Your task to perform on an android device: toggle improve location accuracy Image 0: 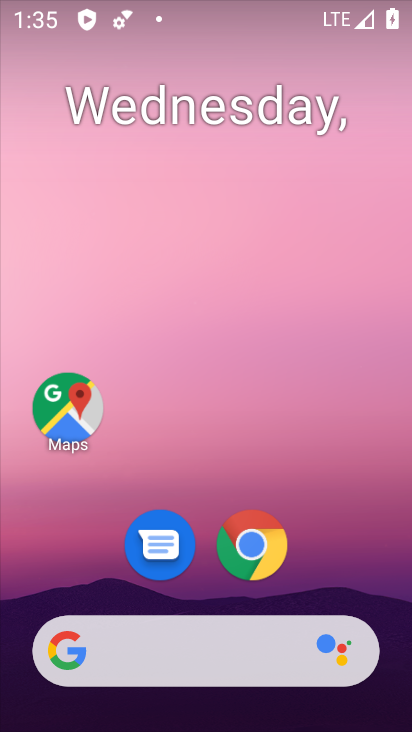
Step 0: drag from (338, 492) to (309, 55)
Your task to perform on an android device: toggle improve location accuracy Image 1: 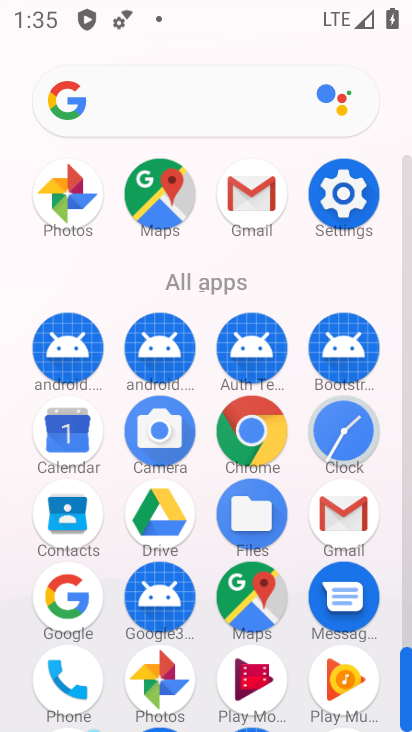
Step 1: click (325, 195)
Your task to perform on an android device: toggle improve location accuracy Image 2: 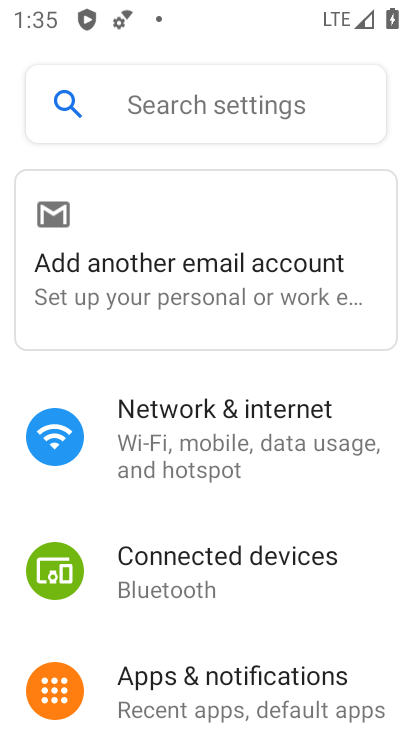
Step 2: drag from (197, 572) to (229, 206)
Your task to perform on an android device: toggle improve location accuracy Image 3: 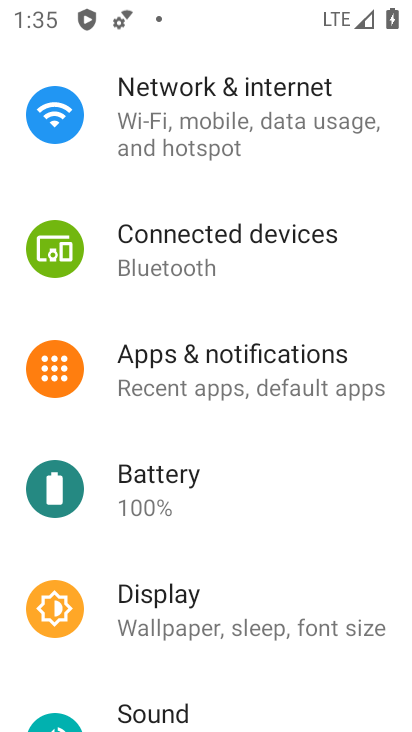
Step 3: drag from (216, 528) to (248, 187)
Your task to perform on an android device: toggle improve location accuracy Image 4: 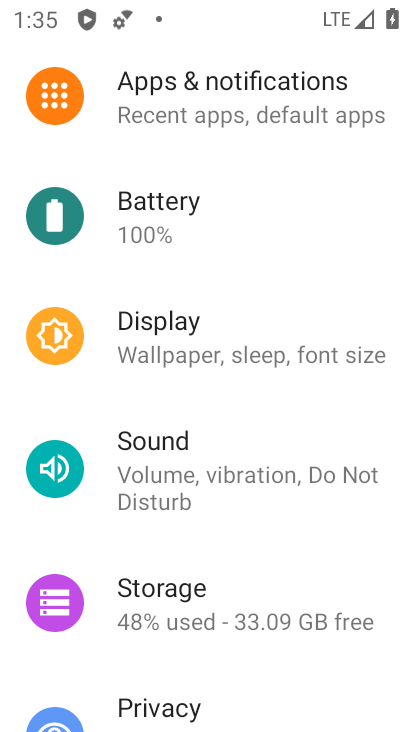
Step 4: drag from (227, 597) to (228, 197)
Your task to perform on an android device: toggle improve location accuracy Image 5: 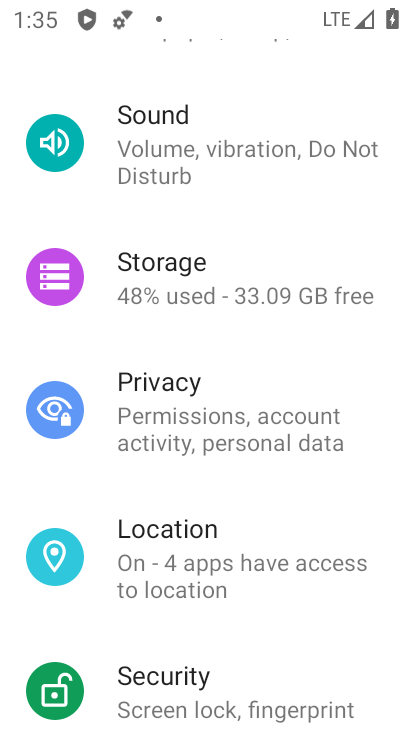
Step 5: click (164, 555)
Your task to perform on an android device: toggle improve location accuracy Image 6: 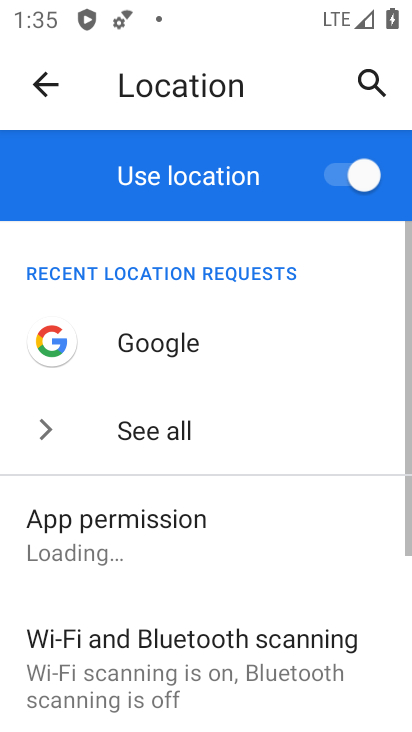
Step 6: drag from (255, 616) to (283, 161)
Your task to perform on an android device: toggle improve location accuracy Image 7: 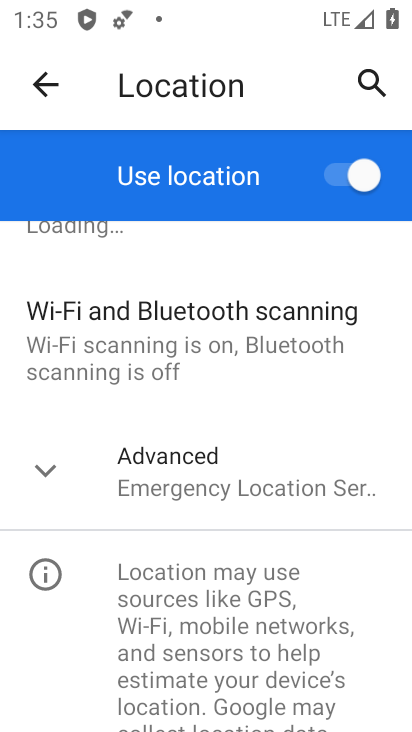
Step 7: click (176, 476)
Your task to perform on an android device: toggle improve location accuracy Image 8: 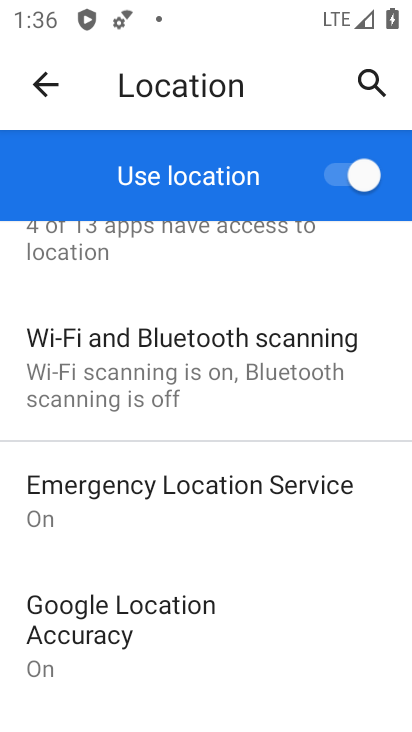
Step 8: drag from (283, 587) to (289, 243)
Your task to perform on an android device: toggle improve location accuracy Image 9: 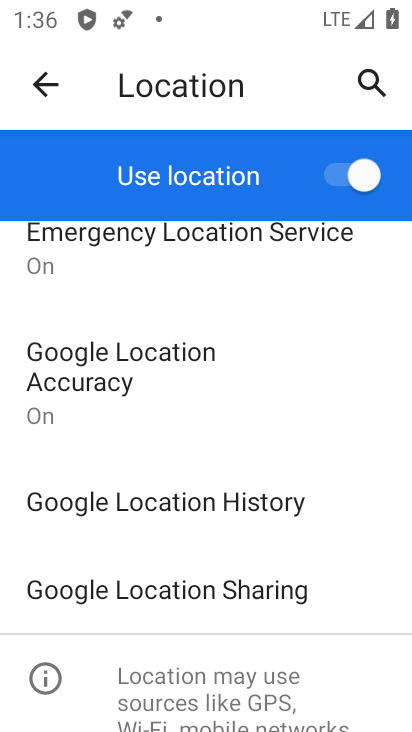
Step 9: click (138, 369)
Your task to perform on an android device: toggle improve location accuracy Image 10: 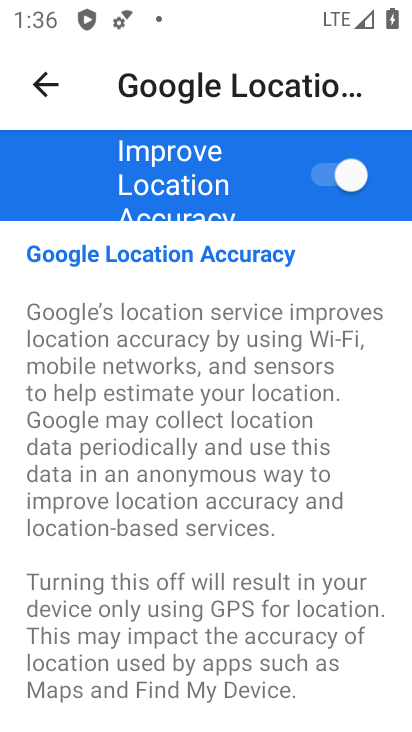
Step 10: click (343, 186)
Your task to perform on an android device: toggle improve location accuracy Image 11: 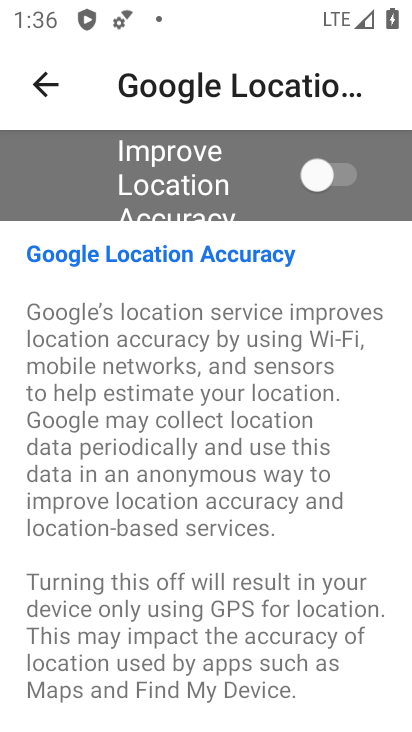
Step 11: task complete